Your task to perform on an android device: What is the news today? Image 0: 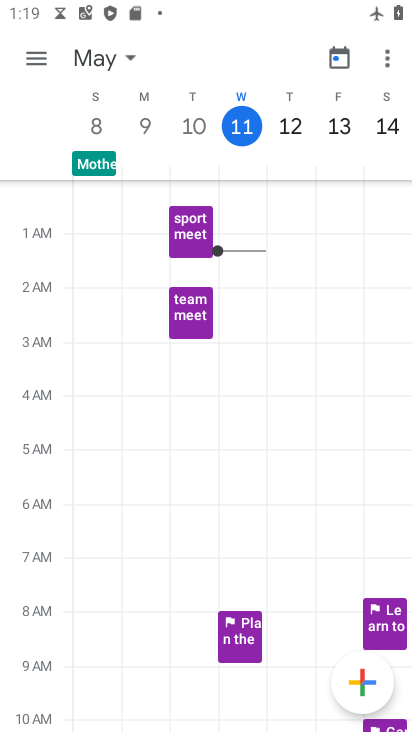
Step 0: press home button
Your task to perform on an android device: What is the news today? Image 1: 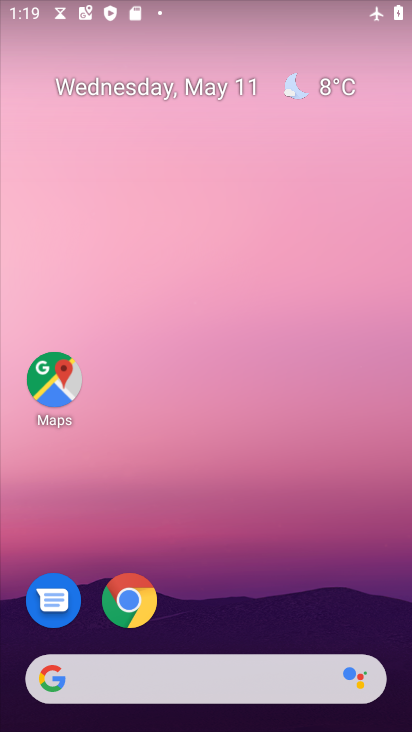
Step 1: drag from (259, 587) to (229, 98)
Your task to perform on an android device: What is the news today? Image 2: 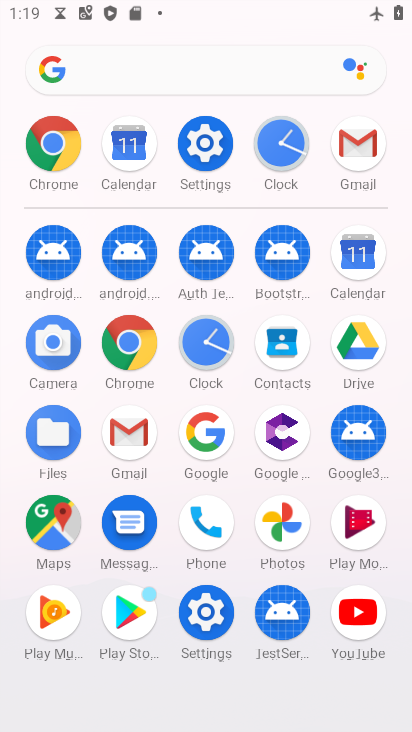
Step 2: click (204, 430)
Your task to perform on an android device: What is the news today? Image 3: 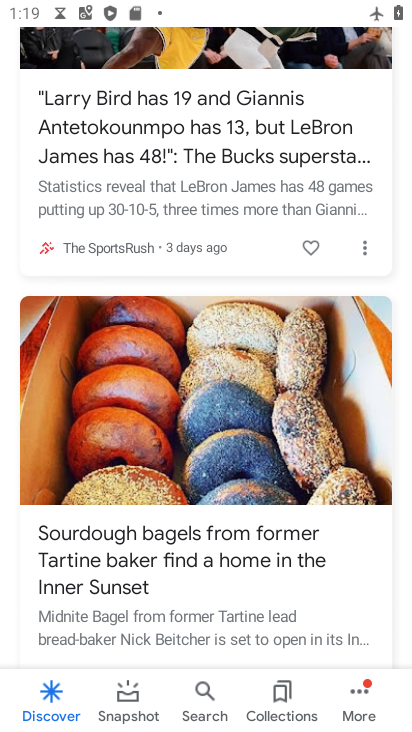
Step 3: task complete